Your task to perform on an android device: Open network settings Image 0: 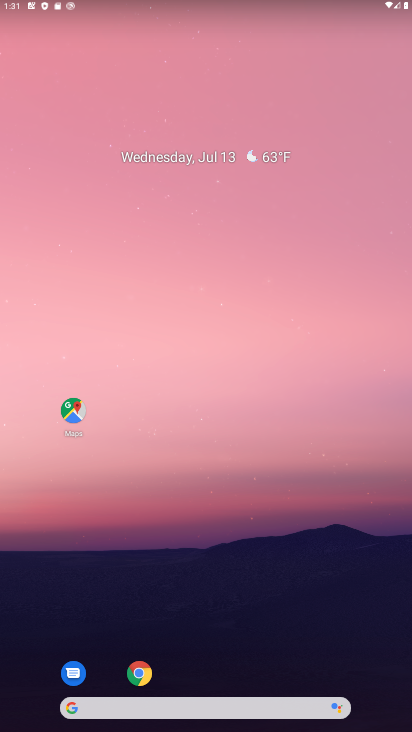
Step 0: drag from (236, 613) to (238, 148)
Your task to perform on an android device: Open network settings Image 1: 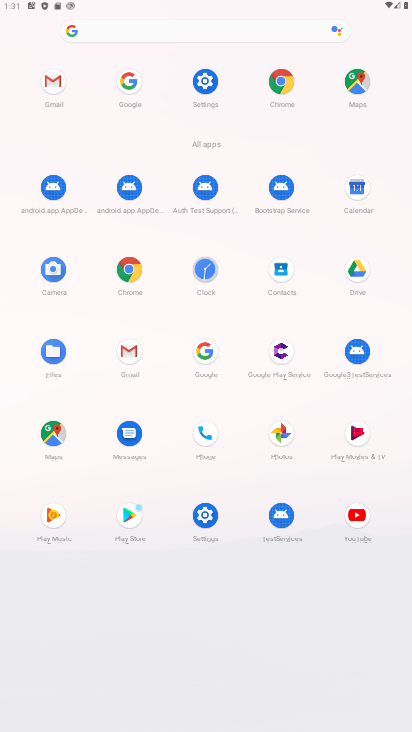
Step 1: click (210, 74)
Your task to perform on an android device: Open network settings Image 2: 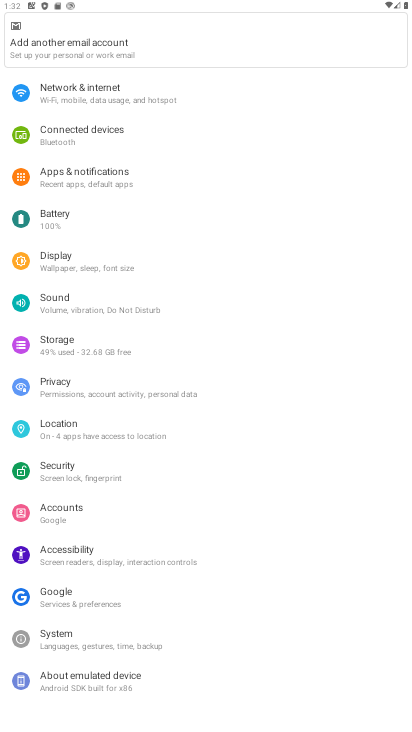
Step 2: click (127, 92)
Your task to perform on an android device: Open network settings Image 3: 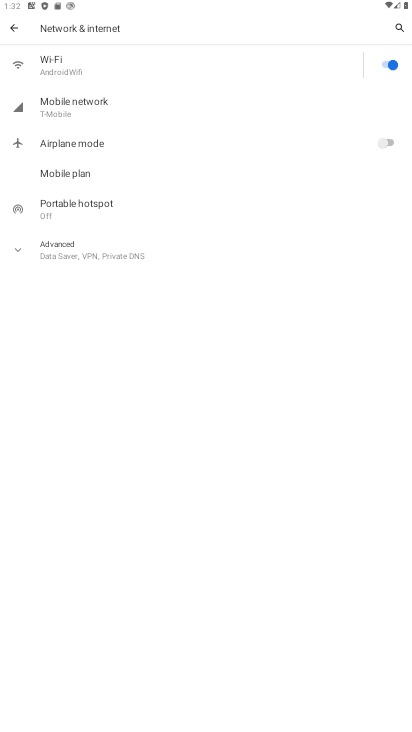
Step 3: task complete